Your task to perform on an android device: Go to location settings Image 0: 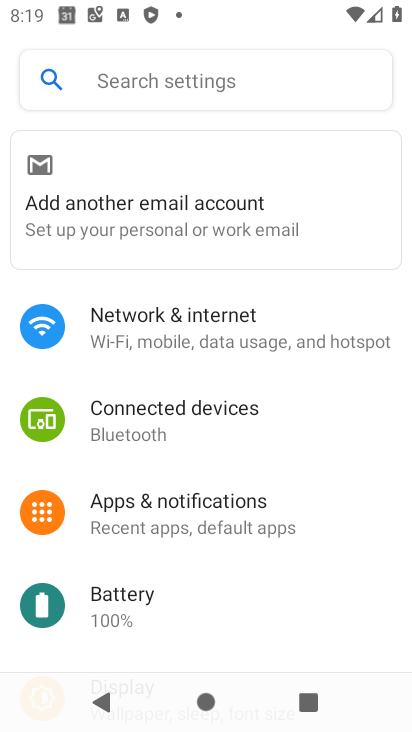
Step 0: drag from (164, 568) to (214, 148)
Your task to perform on an android device: Go to location settings Image 1: 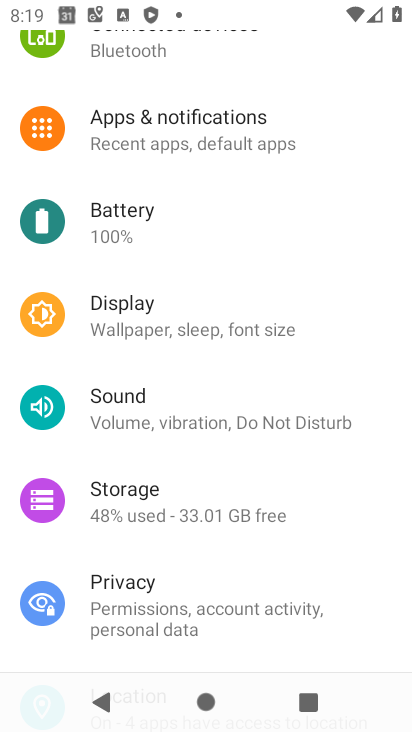
Step 1: drag from (173, 572) to (194, 120)
Your task to perform on an android device: Go to location settings Image 2: 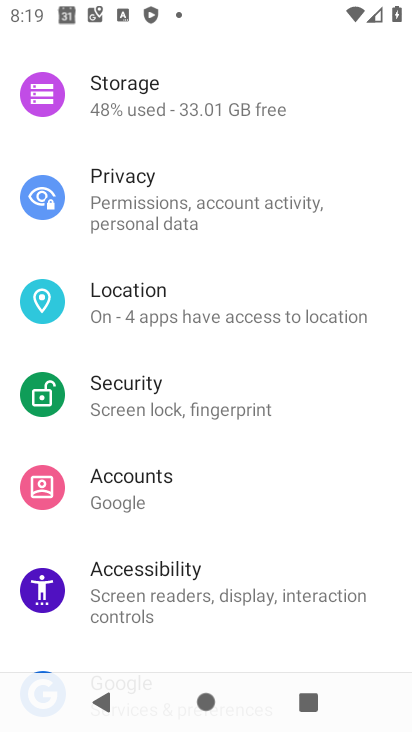
Step 2: click (128, 324)
Your task to perform on an android device: Go to location settings Image 3: 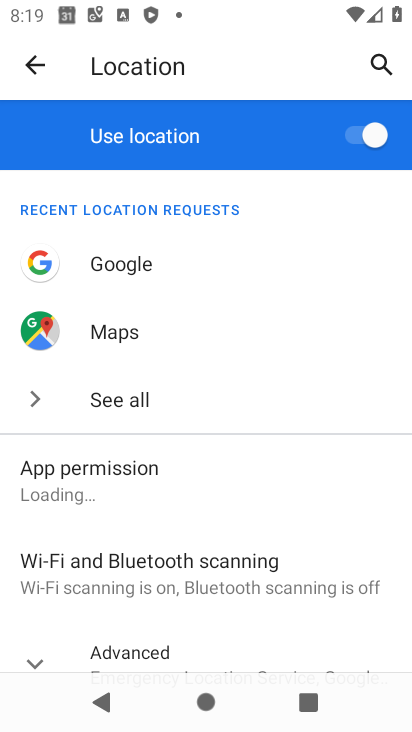
Step 3: task complete